Your task to perform on an android device: Open sound settings Image 0: 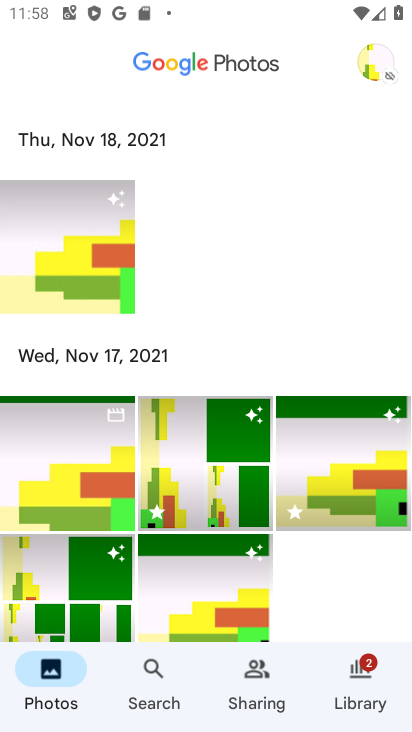
Step 0: press home button
Your task to perform on an android device: Open sound settings Image 1: 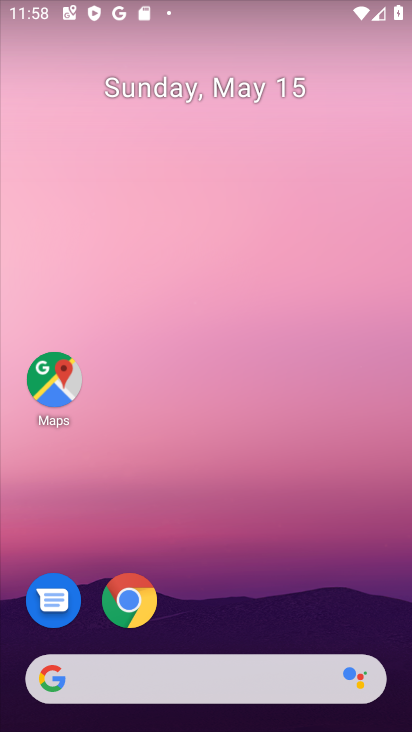
Step 1: drag from (185, 659) to (159, 121)
Your task to perform on an android device: Open sound settings Image 2: 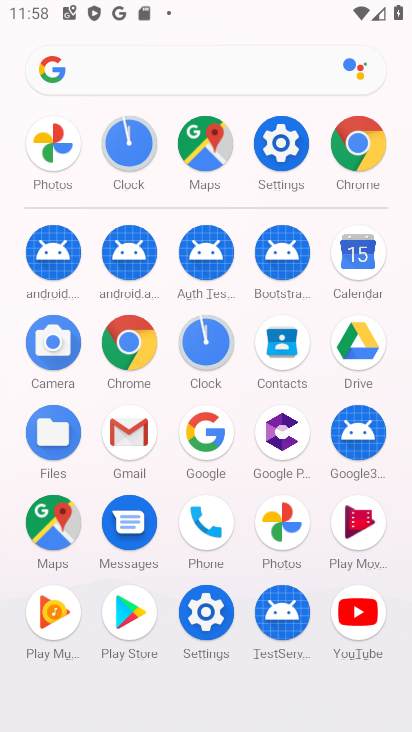
Step 2: click (267, 159)
Your task to perform on an android device: Open sound settings Image 3: 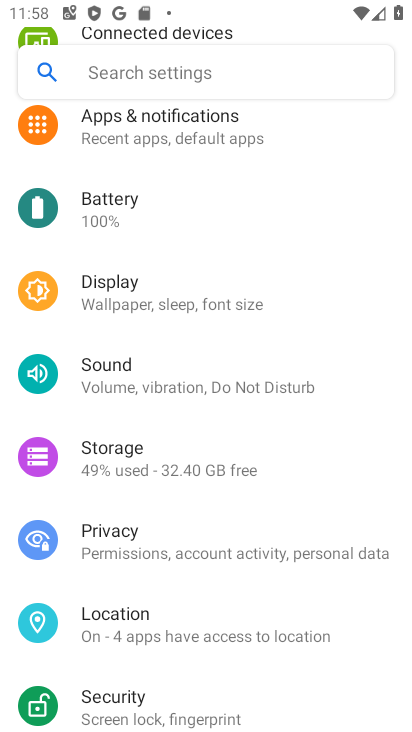
Step 3: click (115, 357)
Your task to perform on an android device: Open sound settings Image 4: 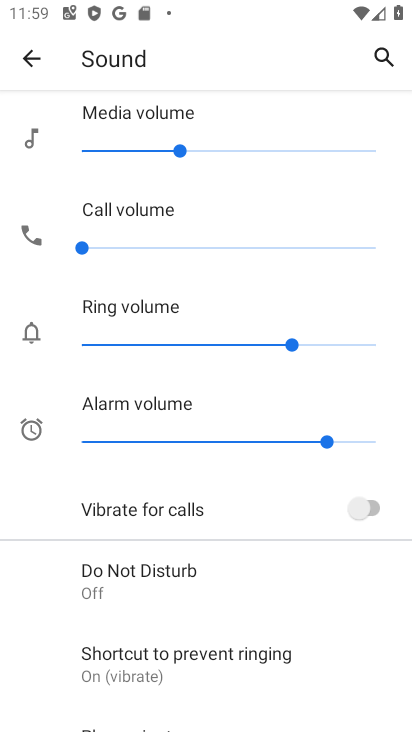
Step 4: task complete